Your task to perform on an android device: What's the weather going to be tomorrow? Image 0: 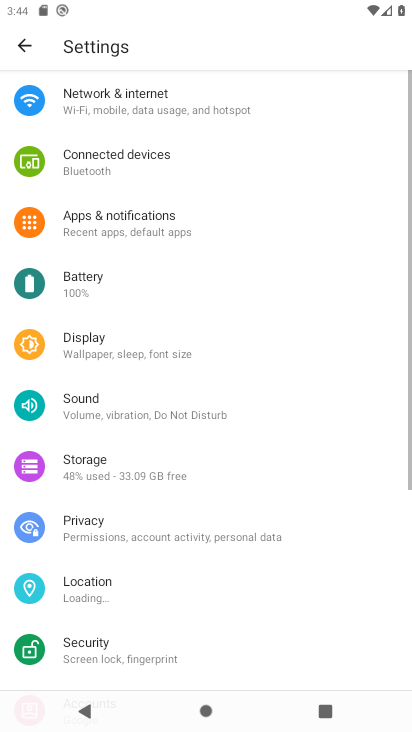
Step 0: press home button
Your task to perform on an android device: What's the weather going to be tomorrow? Image 1: 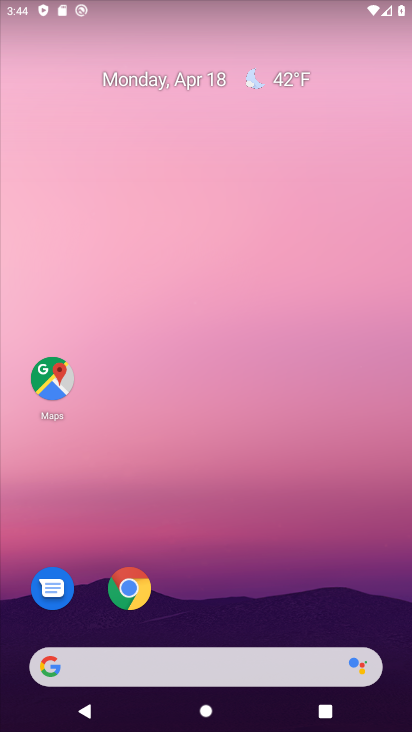
Step 1: click (185, 652)
Your task to perform on an android device: What's the weather going to be tomorrow? Image 2: 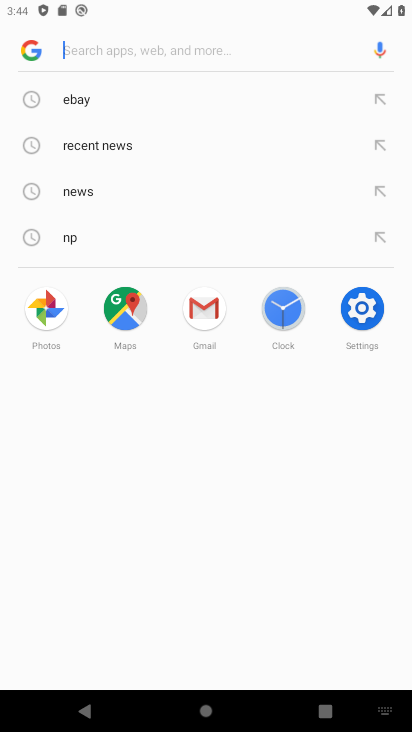
Step 2: type "wether"
Your task to perform on an android device: What's the weather going to be tomorrow? Image 3: 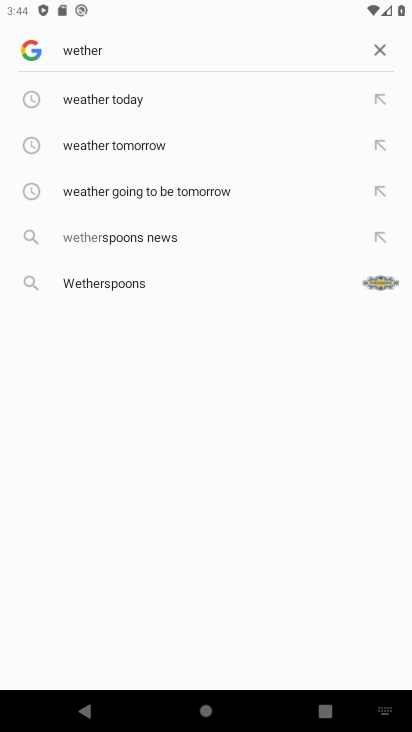
Step 3: drag from (101, 100) to (110, 142)
Your task to perform on an android device: What's the weather going to be tomorrow? Image 4: 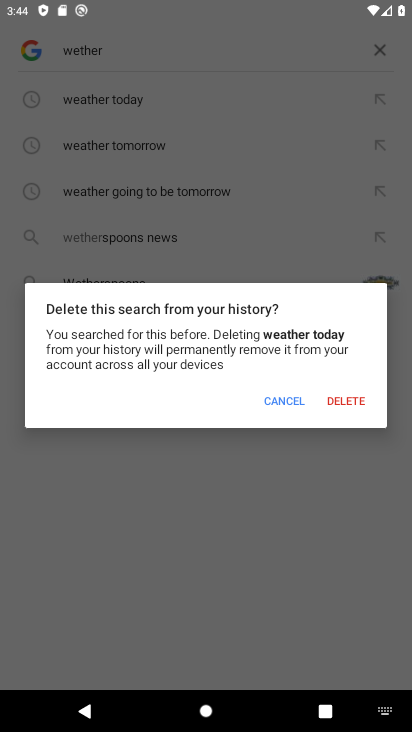
Step 4: click (274, 395)
Your task to perform on an android device: What's the weather going to be tomorrow? Image 5: 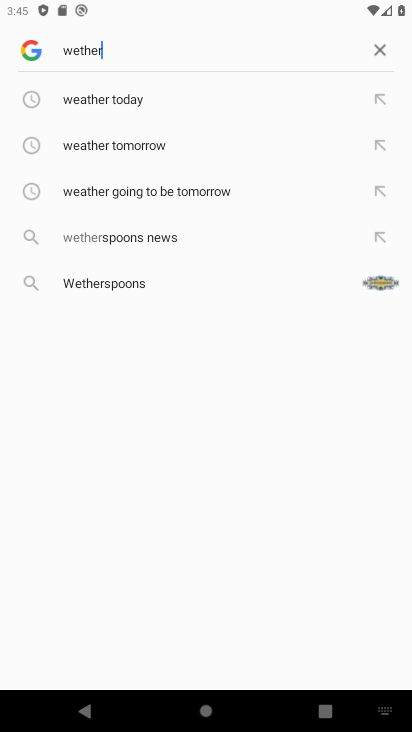
Step 5: click (376, 142)
Your task to perform on an android device: What's the weather going to be tomorrow? Image 6: 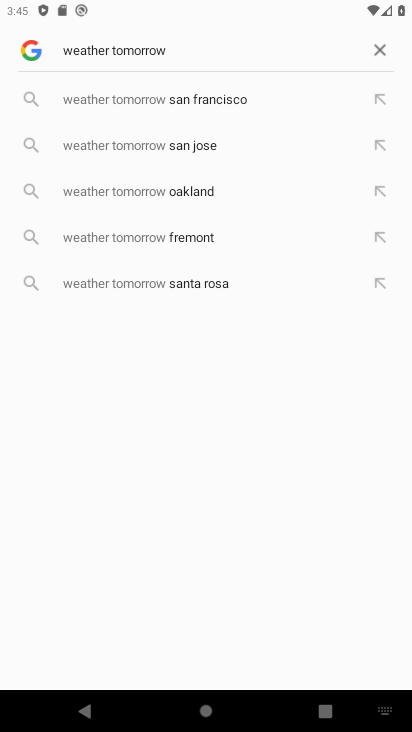
Step 6: click (190, 48)
Your task to perform on an android device: What's the weather going to be tomorrow? Image 7: 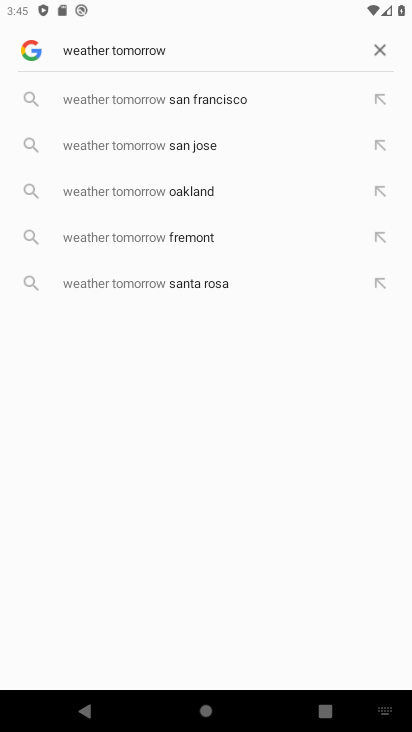
Step 7: click (176, 55)
Your task to perform on an android device: What's the weather going to be tomorrow? Image 8: 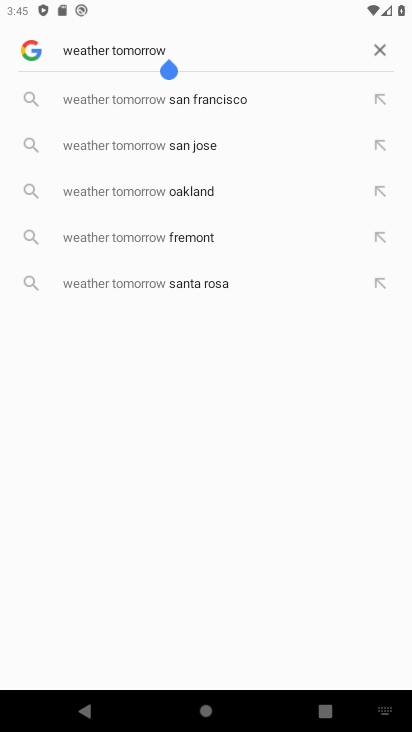
Step 8: click (37, 44)
Your task to perform on an android device: What's the weather going to be tomorrow? Image 9: 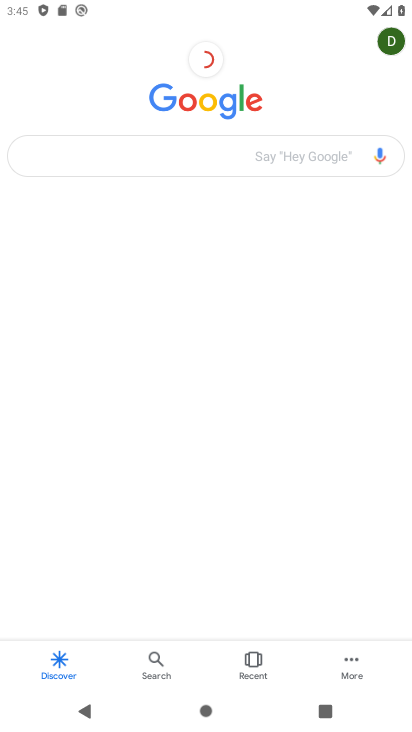
Step 9: click (189, 159)
Your task to perform on an android device: What's the weather going to be tomorrow? Image 10: 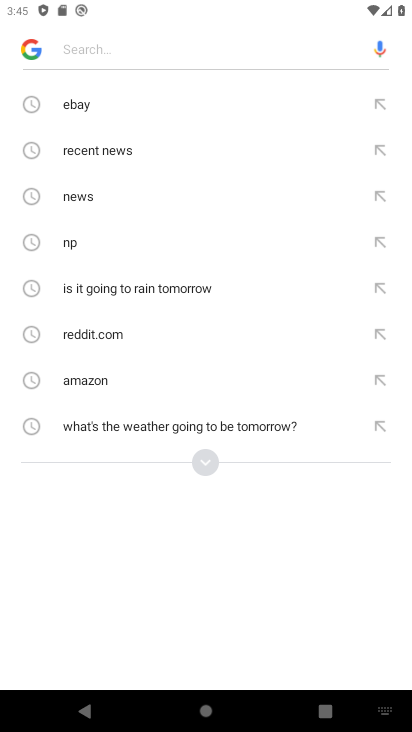
Step 10: type "wether"
Your task to perform on an android device: What's the weather going to be tomorrow? Image 11: 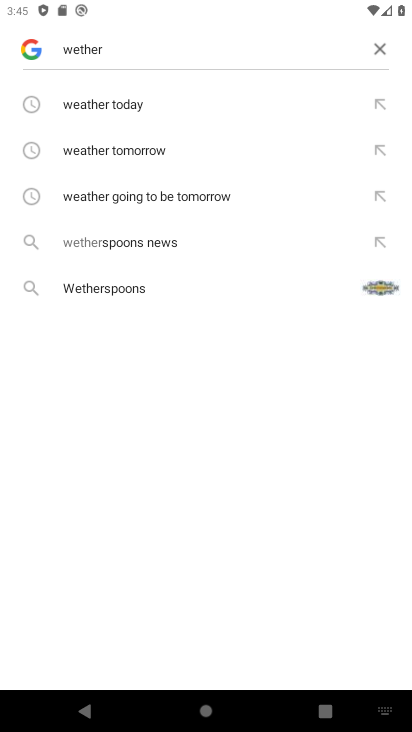
Step 11: click (195, 140)
Your task to perform on an android device: What's the weather going to be tomorrow? Image 12: 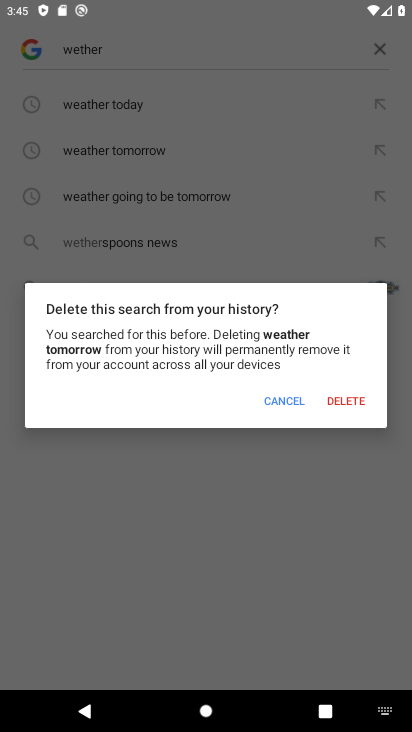
Step 12: click (275, 404)
Your task to perform on an android device: What's the weather going to be tomorrow? Image 13: 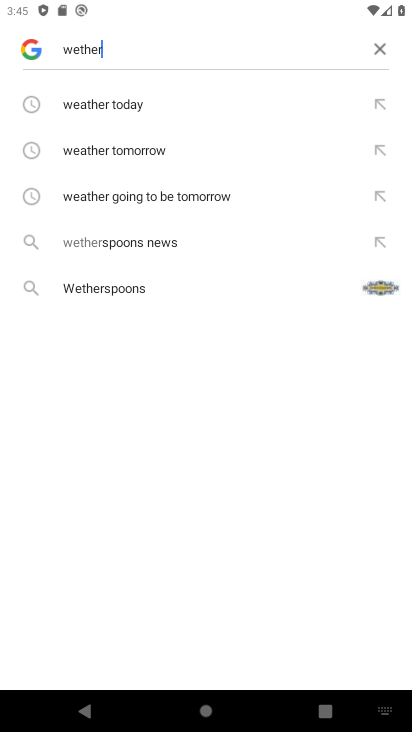
Step 13: click (28, 161)
Your task to perform on an android device: What's the weather going to be tomorrow? Image 14: 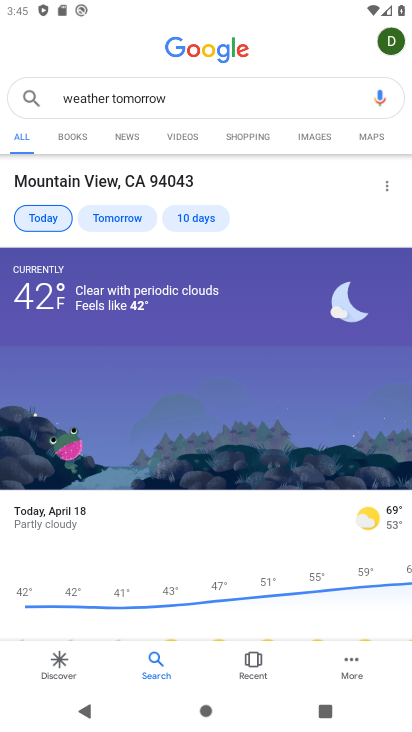
Step 14: task complete